Your task to perform on an android device: Open Yahoo.com Image 0: 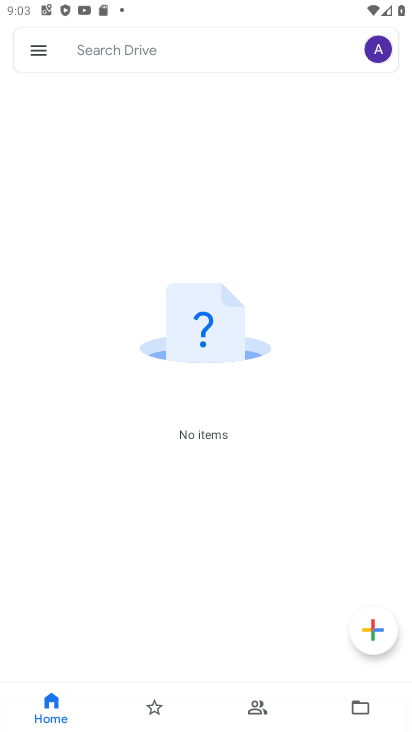
Step 0: press home button
Your task to perform on an android device: Open Yahoo.com Image 1: 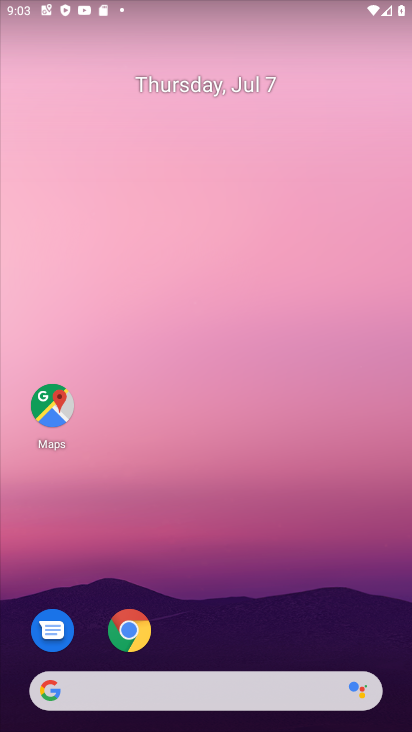
Step 1: click (128, 625)
Your task to perform on an android device: Open Yahoo.com Image 2: 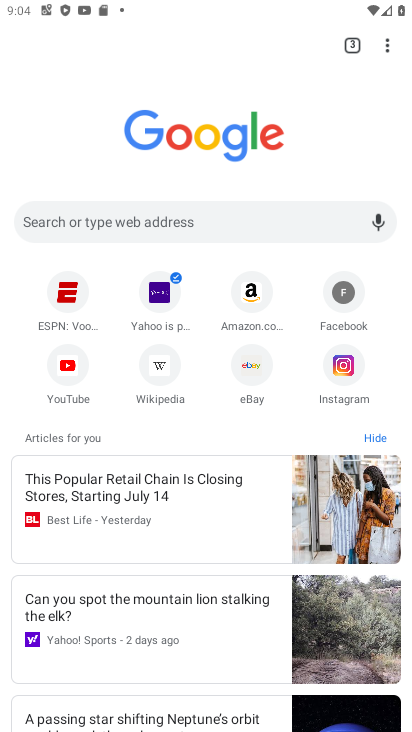
Step 2: click (163, 303)
Your task to perform on an android device: Open Yahoo.com Image 3: 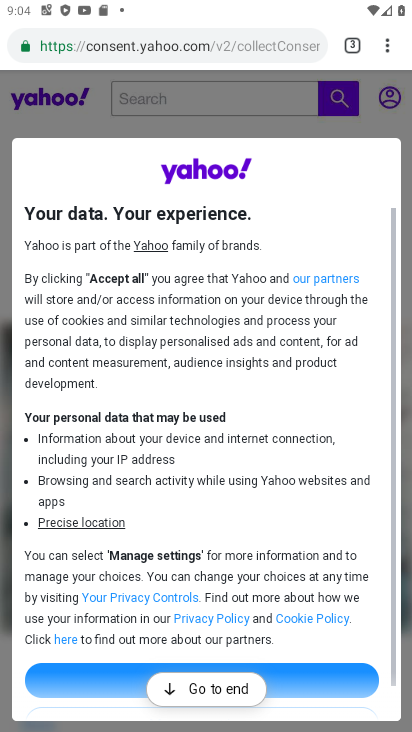
Step 3: task complete